Your task to perform on an android device: turn on javascript in the chrome app Image 0: 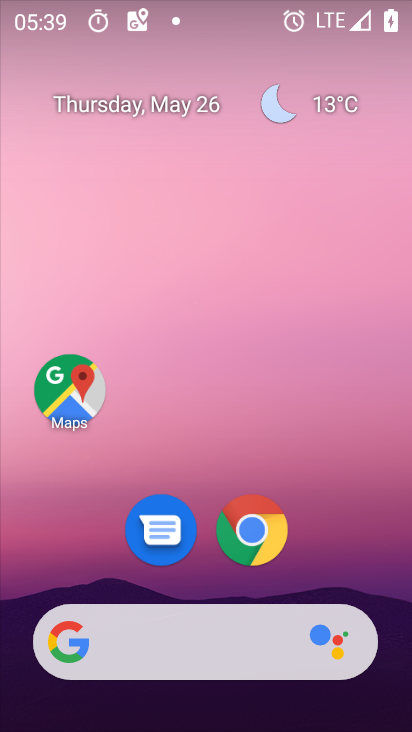
Step 0: drag from (290, 618) to (285, 0)
Your task to perform on an android device: turn on javascript in the chrome app Image 1: 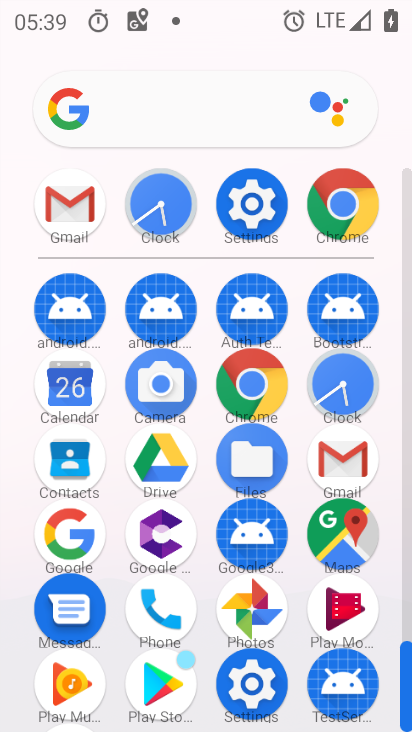
Step 1: click (236, 383)
Your task to perform on an android device: turn on javascript in the chrome app Image 2: 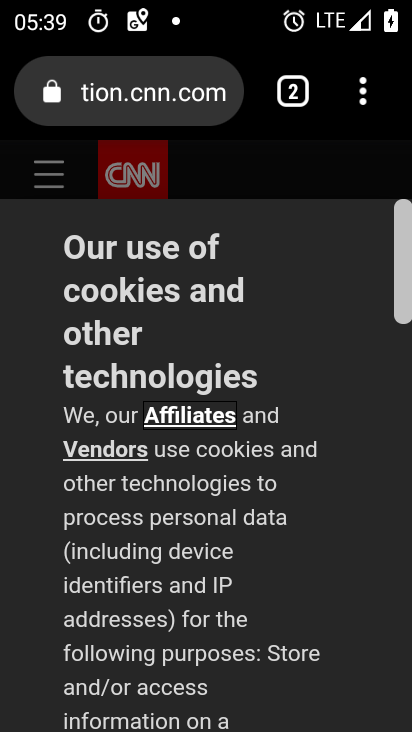
Step 2: drag from (370, 98) to (136, 573)
Your task to perform on an android device: turn on javascript in the chrome app Image 3: 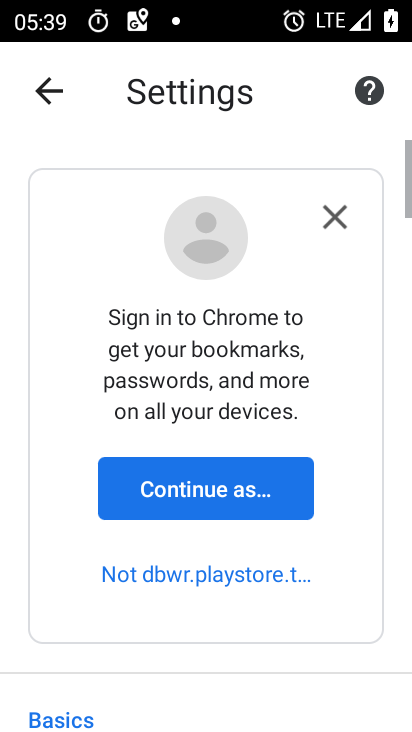
Step 3: drag from (294, 639) to (286, 11)
Your task to perform on an android device: turn on javascript in the chrome app Image 4: 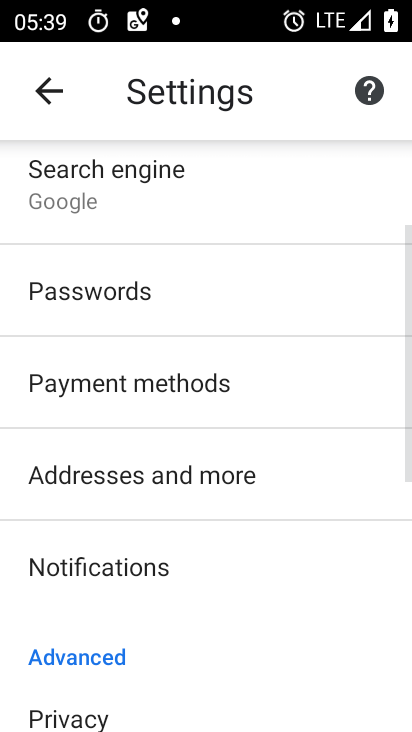
Step 4: drag from (216, 676) to (260, 361)
Your task to perform on an android device: turn on javascript in the chrome app Image 5: 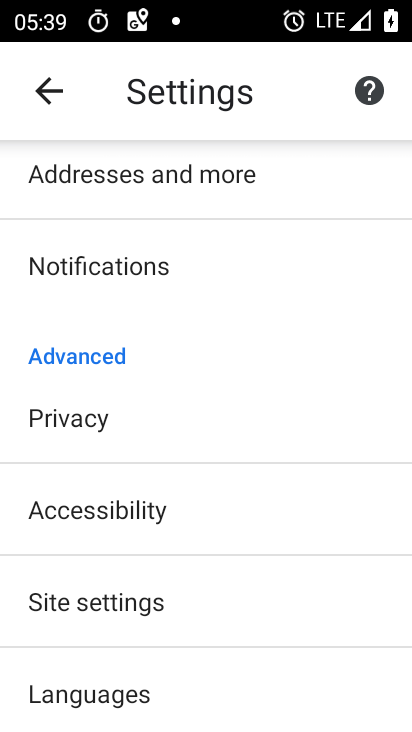
Step 5: click (165, 582)
Your task to perform on an android device: turn on javascript in the chrome app Image 6: 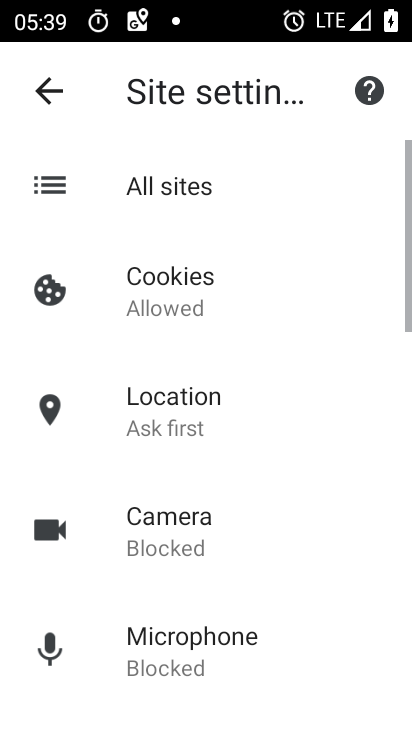
Step 6: drag from (230, 669) to (313, 22)
Your task to perform on an android device: turn on javascript in the chrome app Image 7: 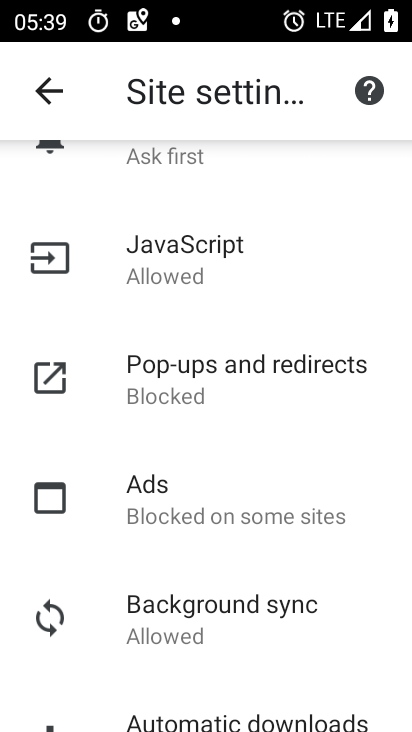
Step 7: click (248, 254)
Your task to perform on an android device: turn on javascript in the chrome app Image 8: 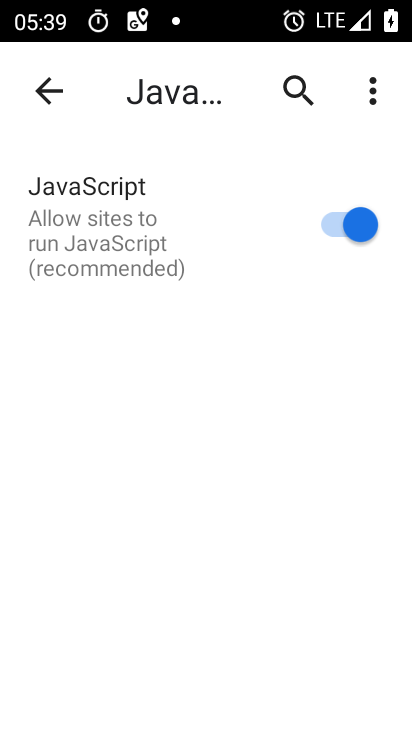
Step 8: task complete